Your task to perform on an android device: Open eBay Image 0: 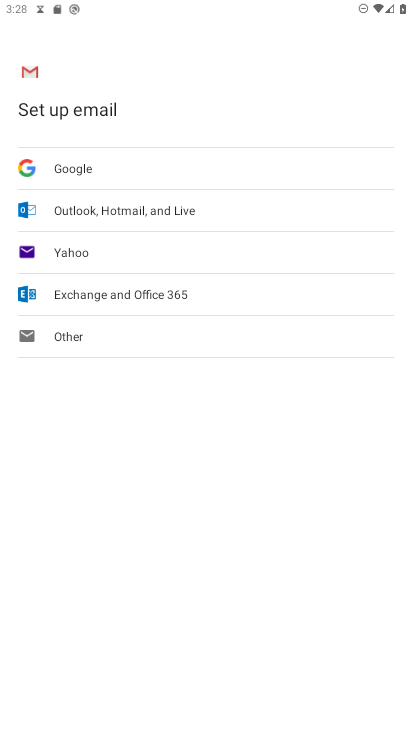
Step 0: press home button
Your task to perform on an android device: Open eBay Image 1: 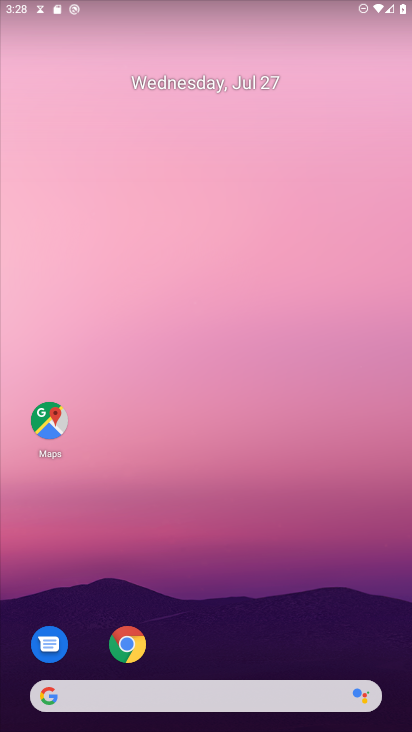
Step 1: click (123, 646)
Your task to perform on an android device: Open eBay Image 2: 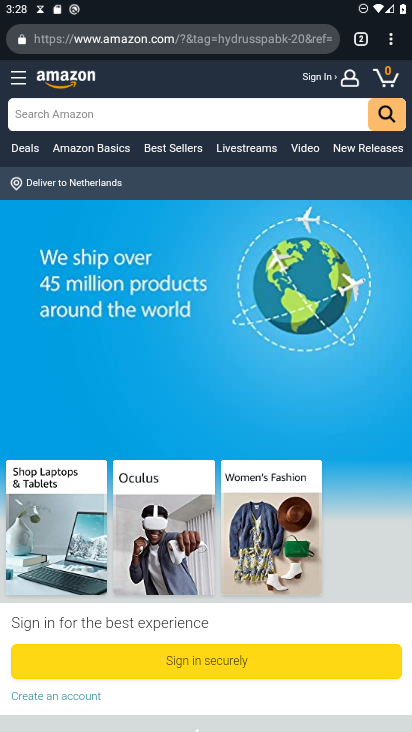
Step 2: click (101, 49)
Your task to perform on an android device: Open eBay Image 3: 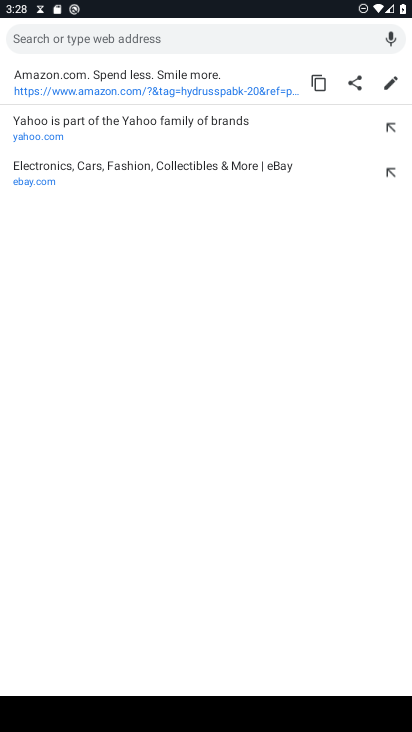
Step 3: type "eBay"
Your task to perform on an android device: Open eBay Image 4: 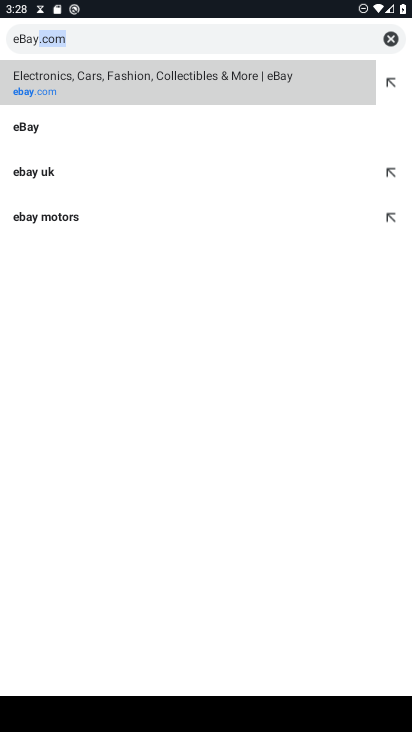
Step 4: click (146, 79)
Your task to perform on an android device: Open eBay Image 5: 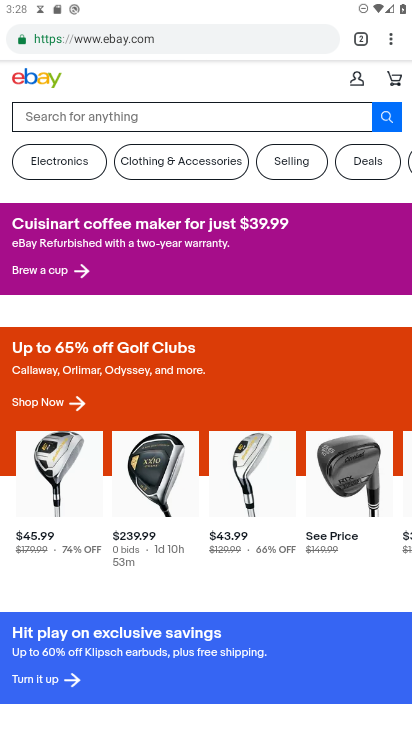
Step 5: task complete